Your task to perform on an android device: install app "Roku - Official Remote Control" Image 0: 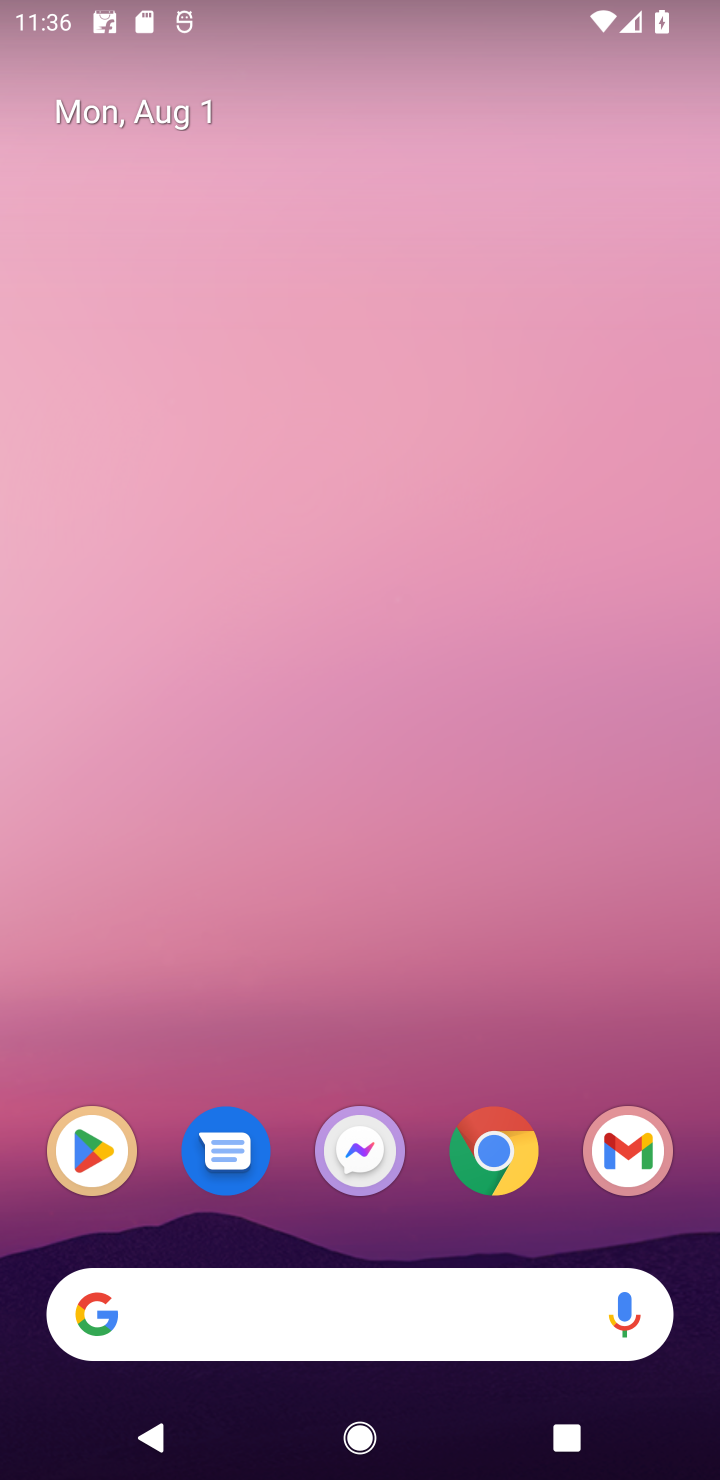
Step 0: click (97, 1131)
Your task to perform on an android device: install app "Roku - Official Remote Control" Image 1: 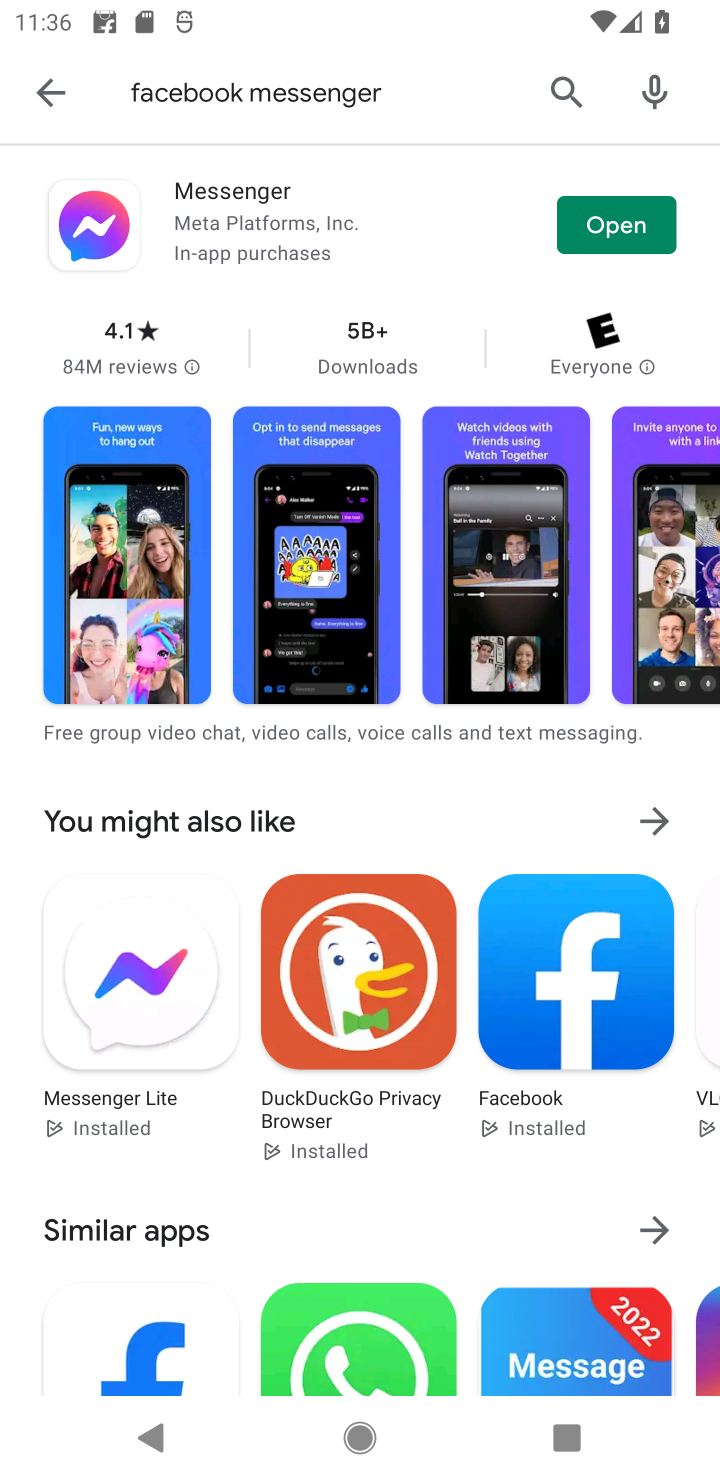
Step 1: click (573, 114)
Your task to perform on an android device: install app "Roku - Official Remote Control" Image 2: 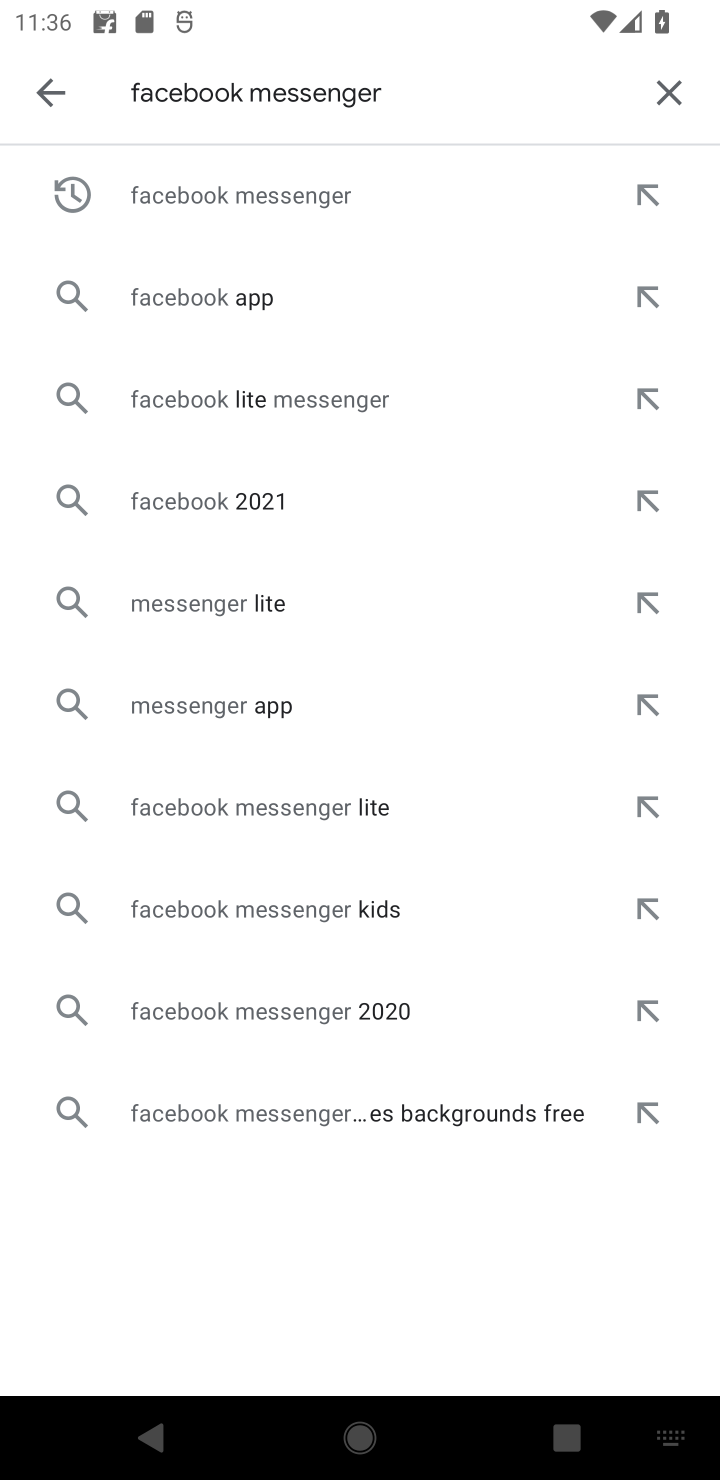
Step 2: click (659, 96)
Your task to perform on an android device: install app "Roku - Official Remote Control" Image 3: 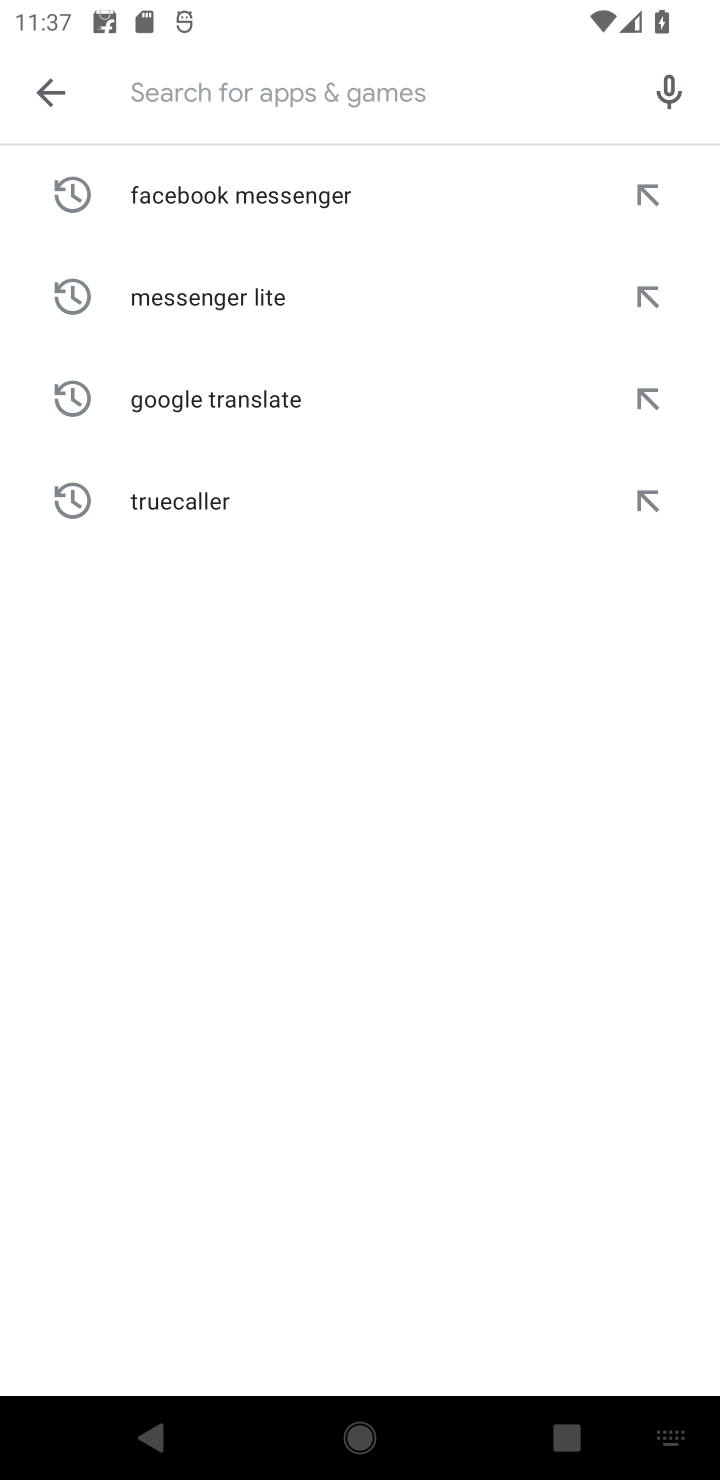
Step 3: type "Roku - Official Remote Contro"
Your task to perform on an android device: install app "Roku - Official Remote Control" Image 4: 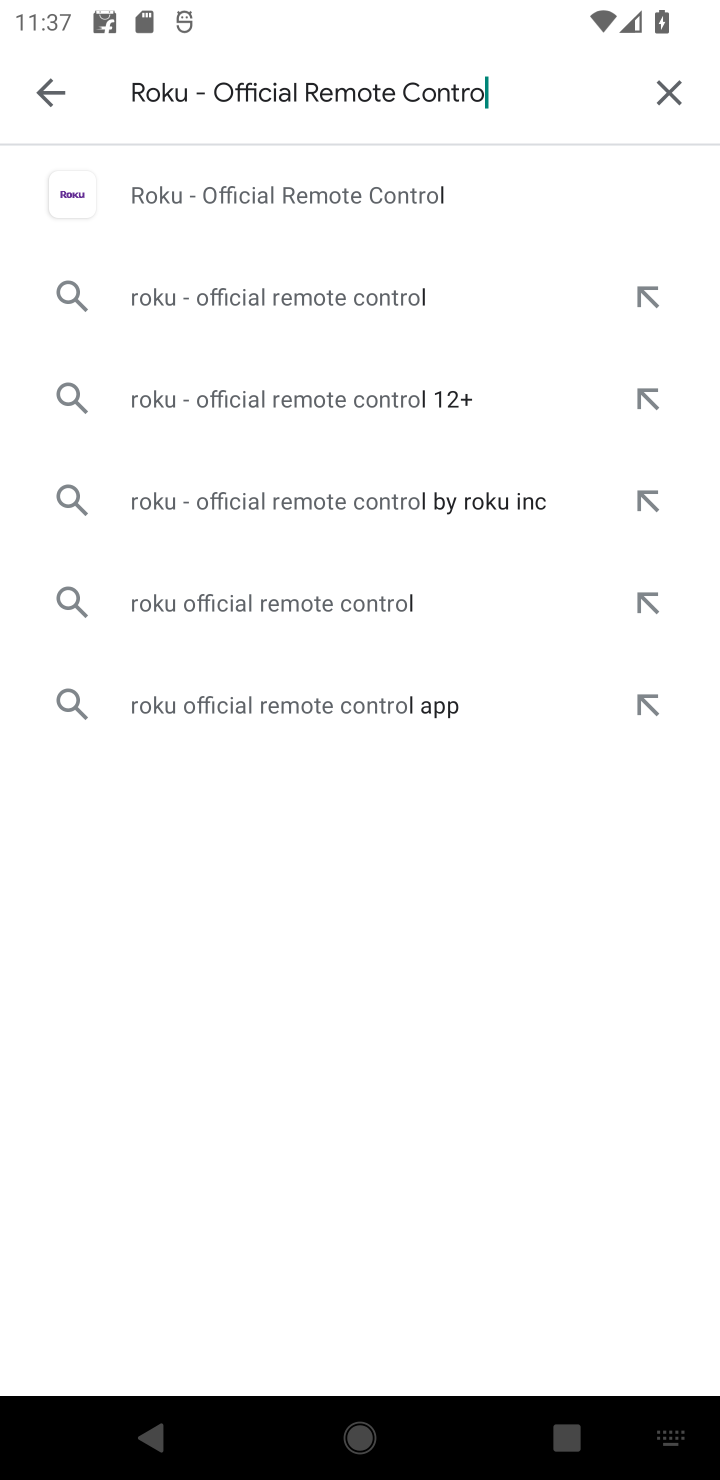
Step 4: click (447, 206)
Your task to perform on an android device: install app "Roku - Official Remote Control" Image 5: 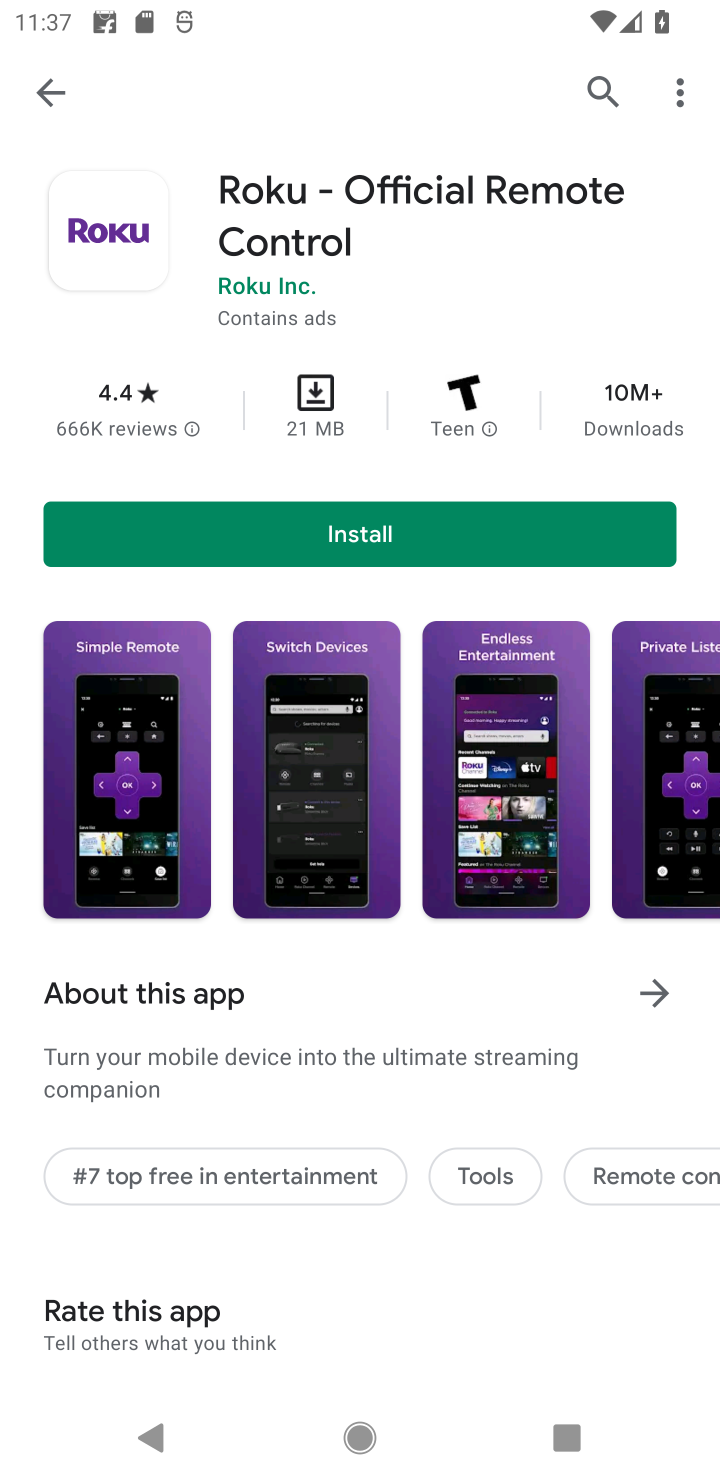
Step 5: click (382, 544)
Your task to perform on an android device: install app "Roku - Official Remote Control" Image 6: 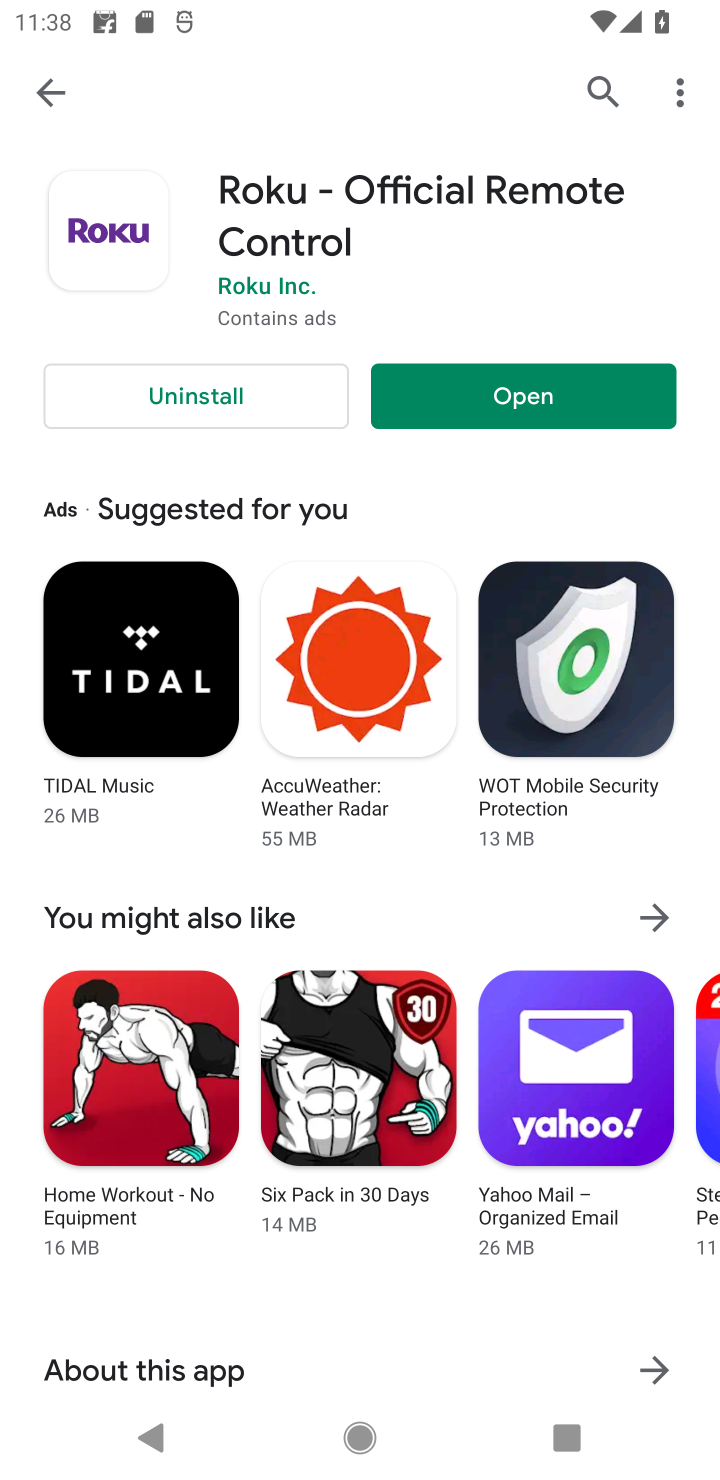
Step 6: task complete